Your task to perform on an android device: Open Maps and search for coffee Image 0: 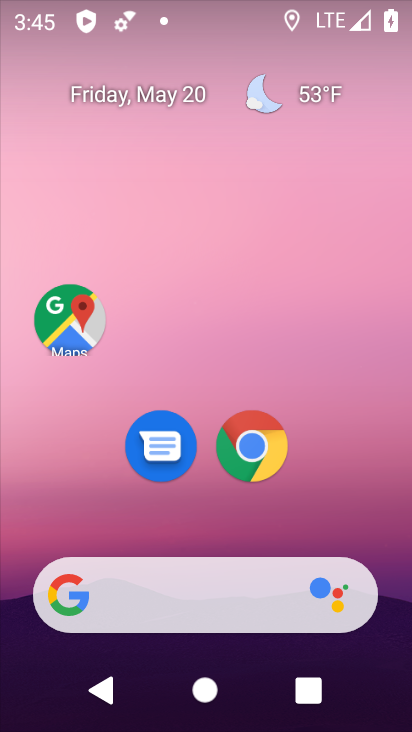
Step 0: drag from (312, 489) to (397, 47)
Your task to perform on an android device: Open Maps and search for coffee Image 1: 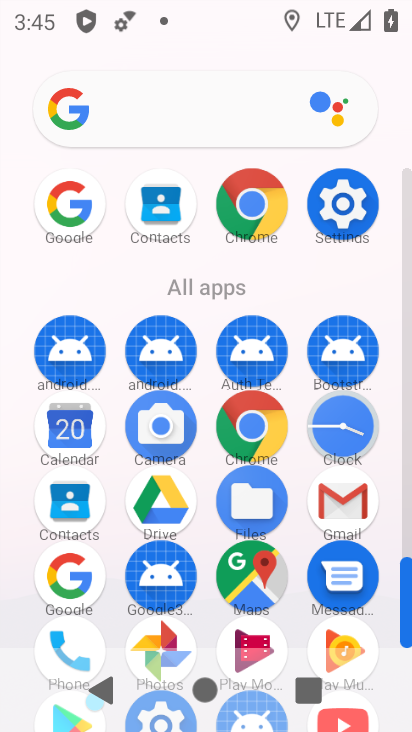
Step 1: click (251, 588)
Your task to perform on an android device: Open Maps and search for coffee Image 2: 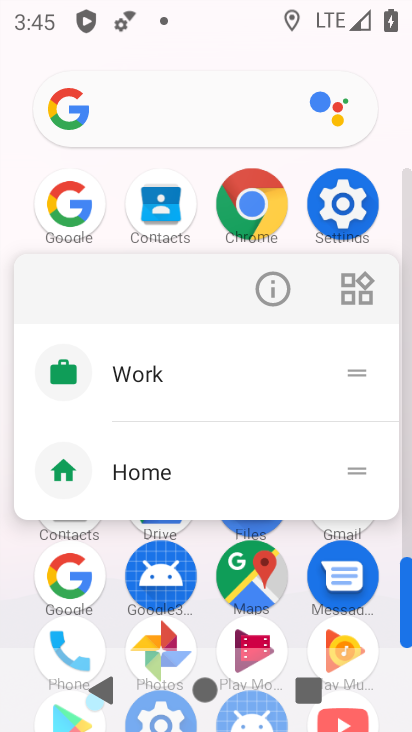
Step 2: click (251, 588)
Your task to perform on an android device: Open Maps and search for coffee Image 3: 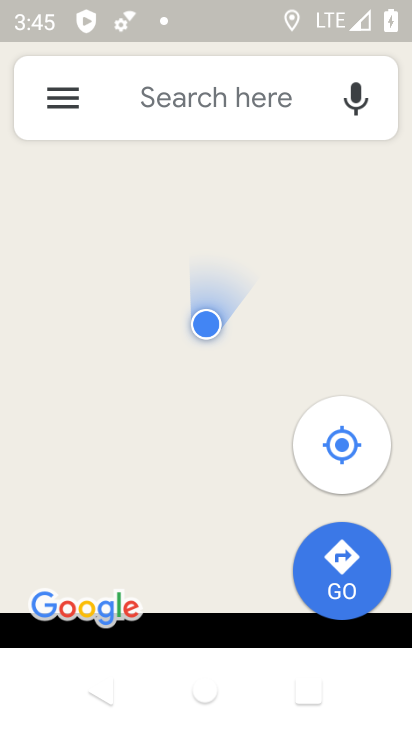
Step 3: click (238, 84)
Your task to perform on an android device: Open Maps and search for coffee Image 4: 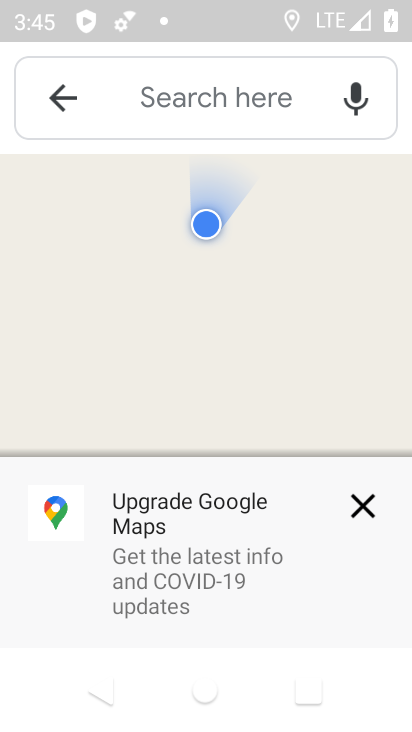
Step 4: click (225, 109)
Your task to perform on an android device: Open Maps and search for coffee Image 5: 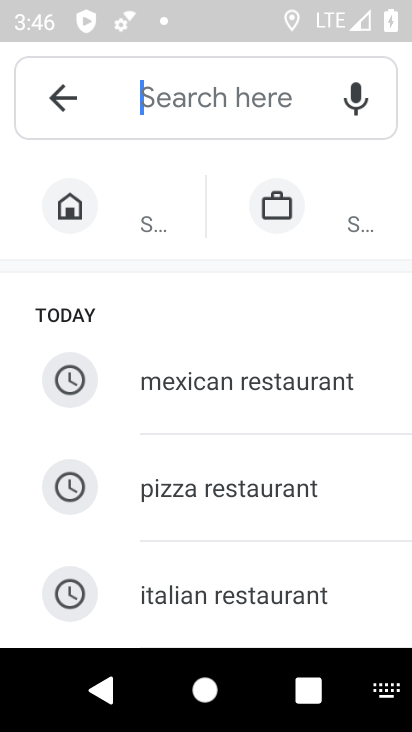
Step 5: drag from (188, 546) to (284, 184)
Your task to perform on an android device: Open Maps and search for coffee Image 6: 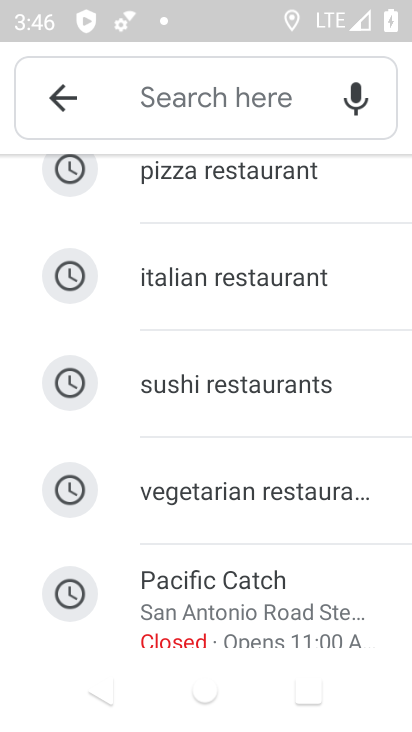
Step 6: drag from (221, 535) to (304, 197)
Your task to perform on an android device: Open Maps and search for coffee Image 7: 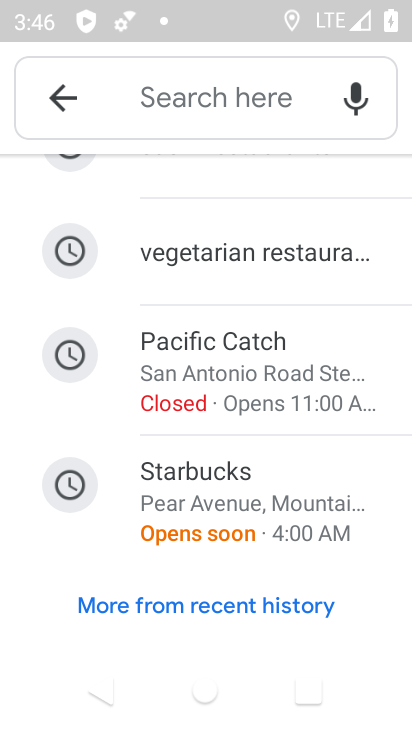
Step 7: drag from (305, 208) to (290, 519)
Your task to perform on an android device: Open Maps and search for coffee Image 8: 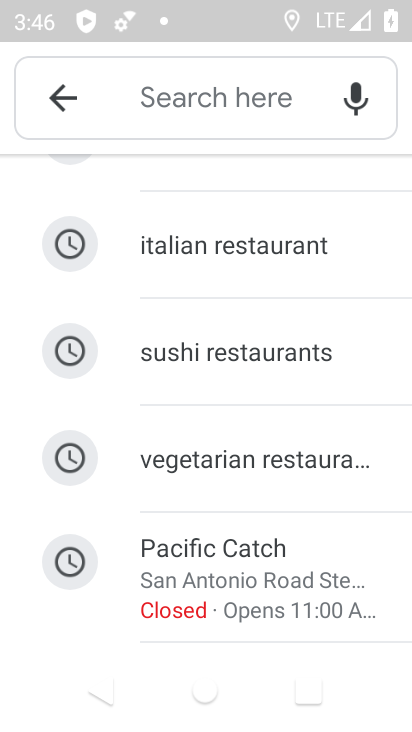
Step 8: drag from (300, 249) to (220, 651)
Your task to perform on an android device: Open Maps and search for coffee Image 9: 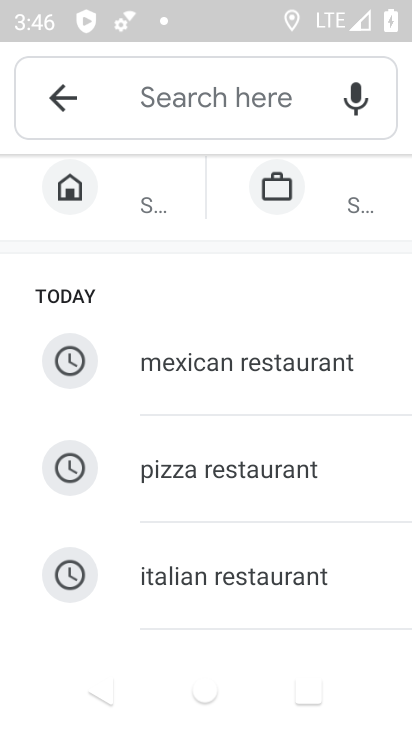
Step 9: click (206, 120)
Your task to perform on an android device: Open Maps and search for coffee Image 10: 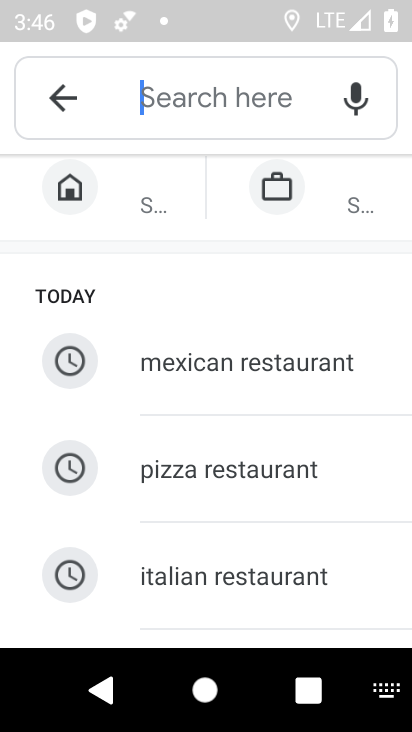
Step 10: type "coffee"
Your task to perform on an android device: Open Maps and search for coffee Image 11: 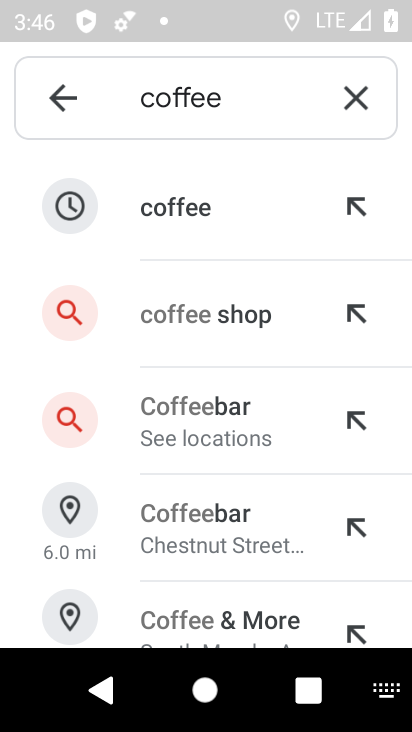
Step 11: click (171, 220)
Your task to perform on an android device: Open Maps and search for coffee Image 12: 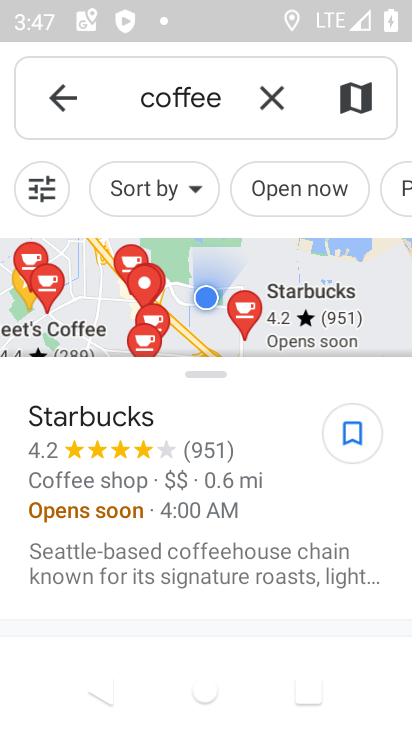
Step 12: task complete